Your task to perform on an android device: uninstall "Google Home" Image 0: 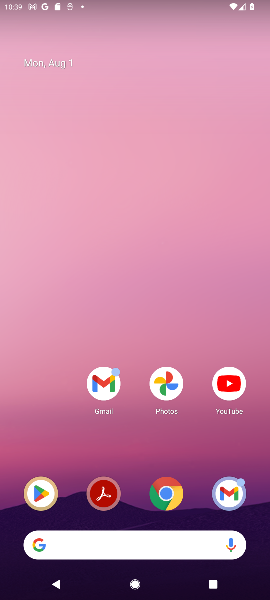
Step 0: task complete